Your task to perform on an android device: find photos in the google photos app Image 0: 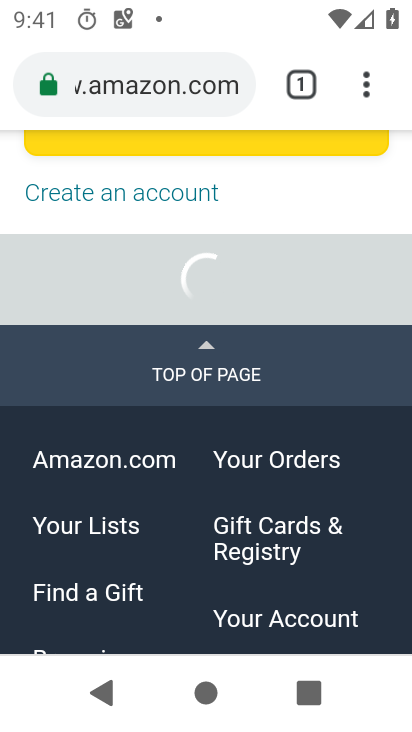
Step 0: drag from (258, 248) to (181, 724)
Your task to perform on an android device: find photos in the google photos app Image 1: 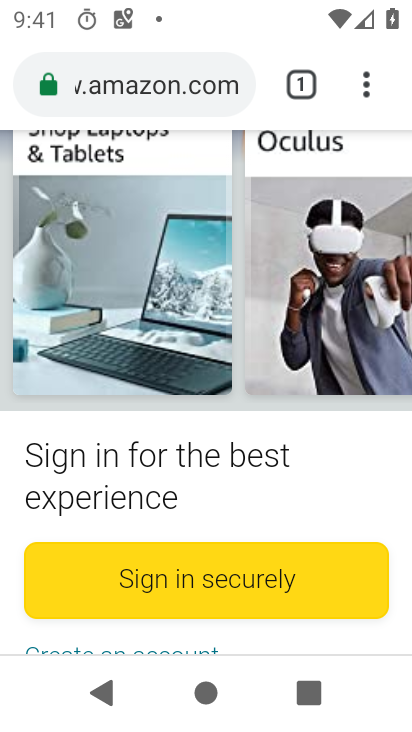
Step 1: press home button
Your task to perform on an android device: find photos in the google photos app Image 2: 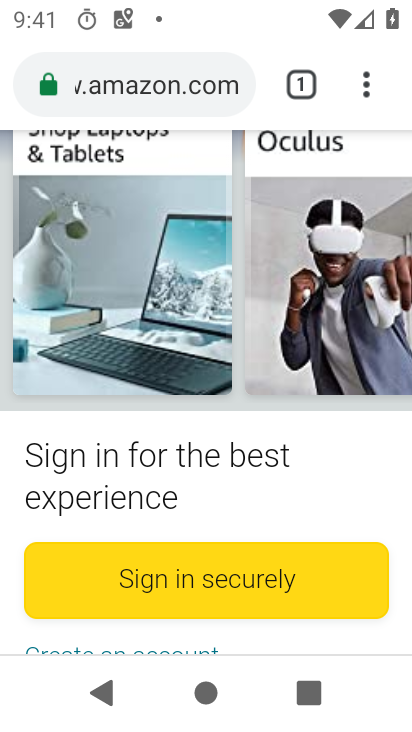
Step 2: drag from (217, 557) to (323, 20)
Your task to perform on an android device: find photos in the google photos app Image 3: 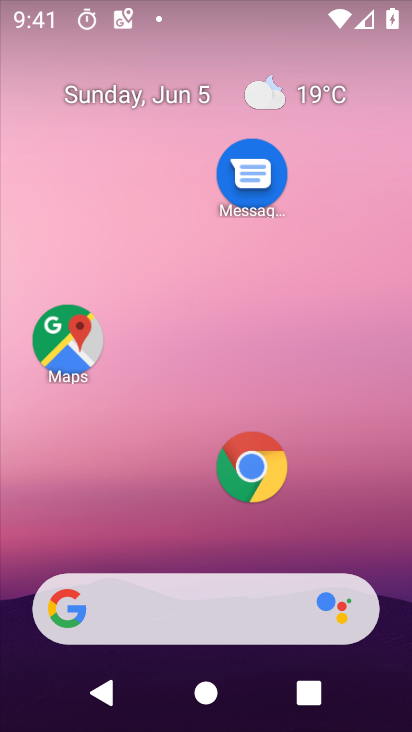
Step 3: drag from (202, 523) to (179, 96)
Your task to perform on an android device: find photos in the google photos app Image 4: 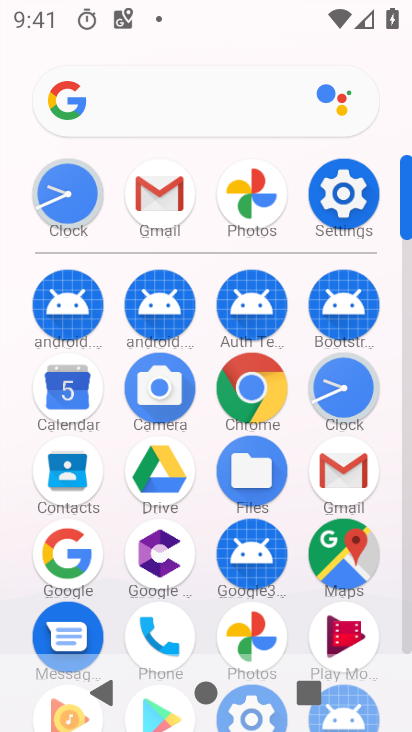
Step 4: click (250, 614)
Your task to perform on an android device: find photos in the google photos app Image 5: 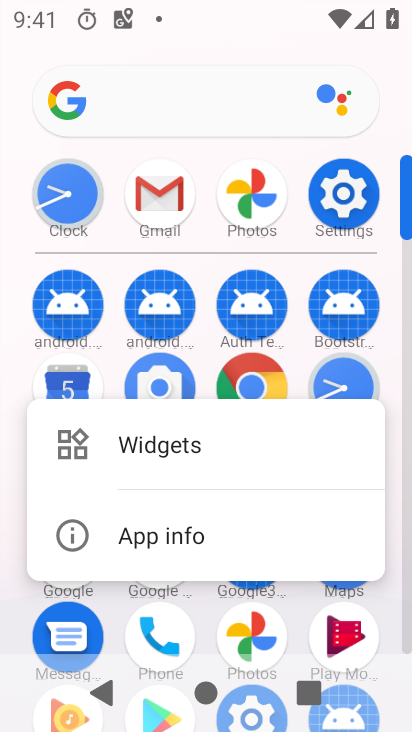
Step 5: click (152, 523)
Your task to perform on an android device: find photos in the google photos app Image 6: 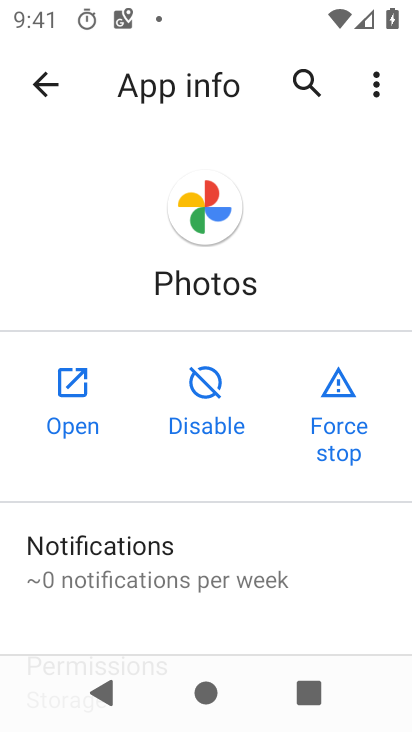
Step 6: click (66, 396)
Your task to perform on an android device: find photos in the google photos app Image 7: 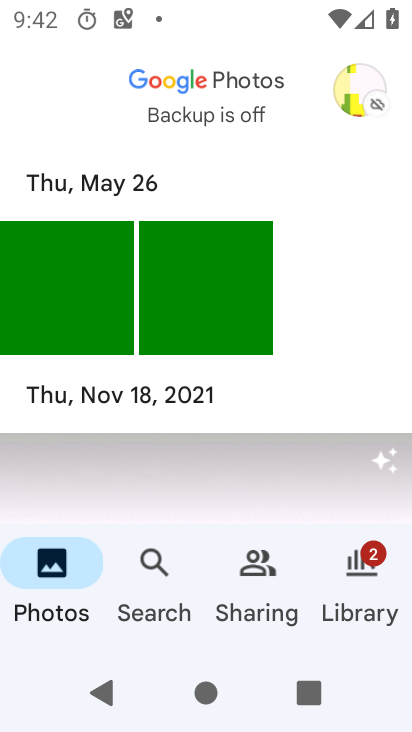
Step 7: drag from (194, 431) to (233, 56)
Your task to perform on an android device: find photos in the google photos app Image 8: 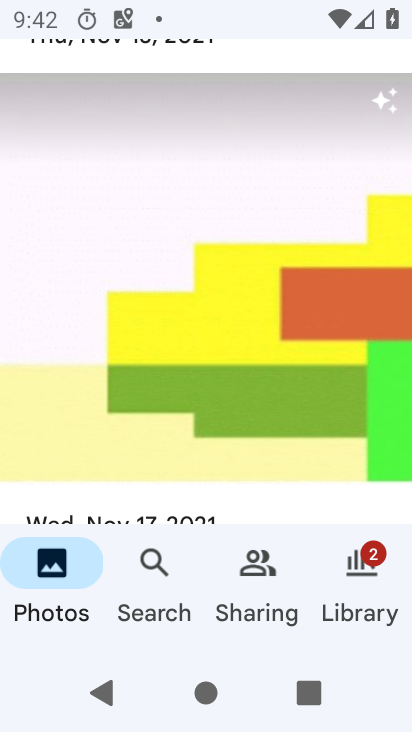
Step 8: drag from (221, 293) to (266, 82)
Your task to perform on an android device: find photos in the google photos app Image 9: 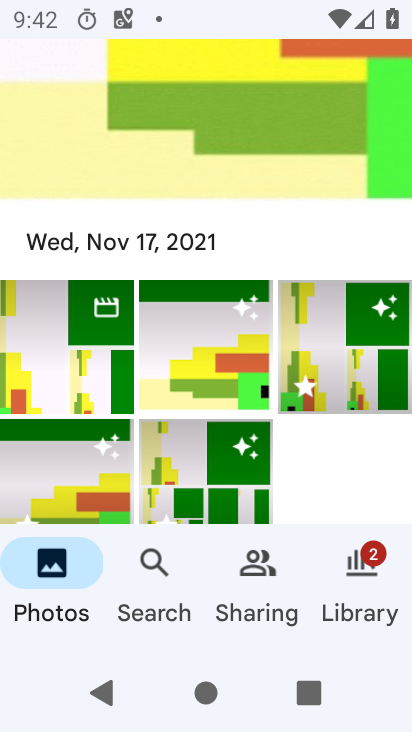
Step 9: drag from (231, 434) to (287, 140)
Your task to perform on an android device: find photos in the google photos app Image 10: 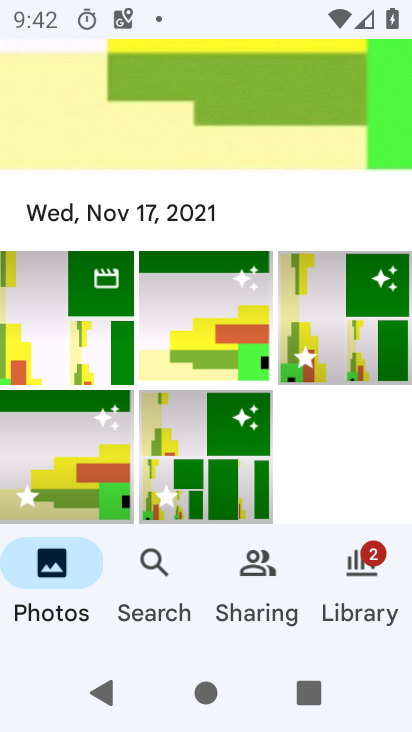
Step 10: click (200, 324)
Your task to perform on an android device: find photos in the google photos app Image 11: 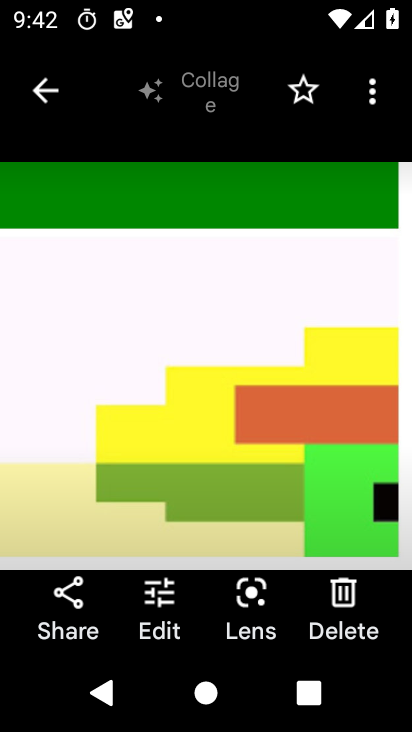
Step 11: task complete